Your task to perform on an android device: Is it going to rain today? Image 0: 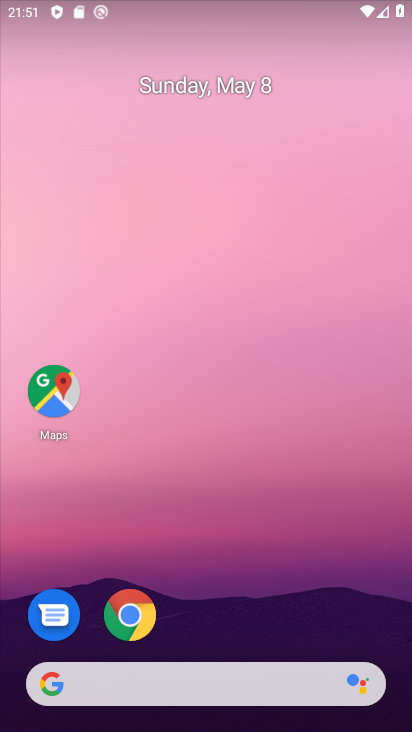
Step 0: drag from (266, 555) to (12, 0)
Your task to perform on an android device: Is it going to rain today? Image 1: 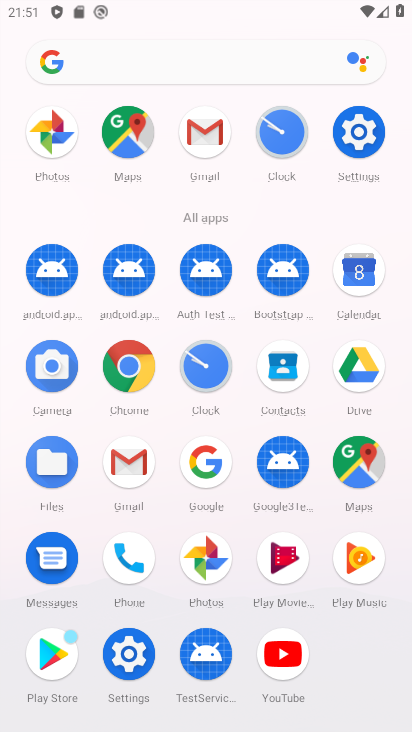
Step 1: press home button
Your task to perform on an android device: Is it going to rain today? Image 2: 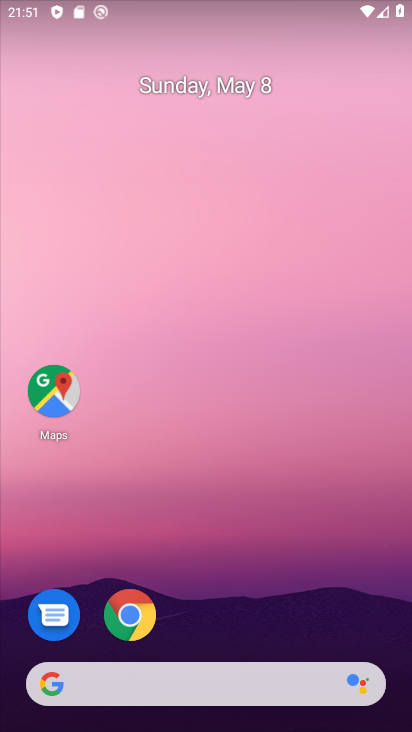
Step 2: click (320, 91)
Your task to perform on an android device: Is it going to rain today? Image 3: 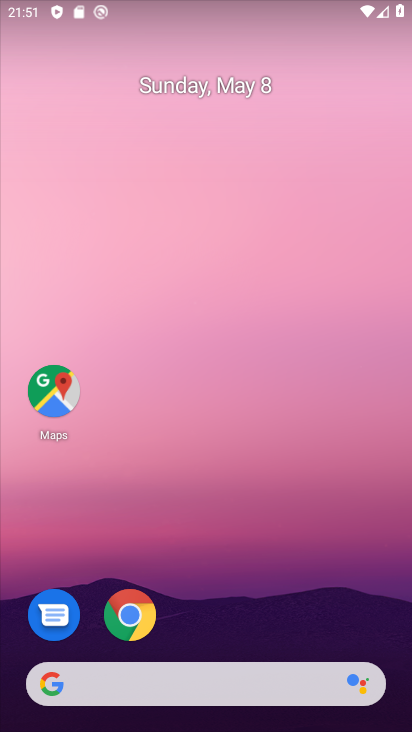
Step 3: click (321, 92)
Your task to perform on an android device: Is it going to rain today? Image 4: 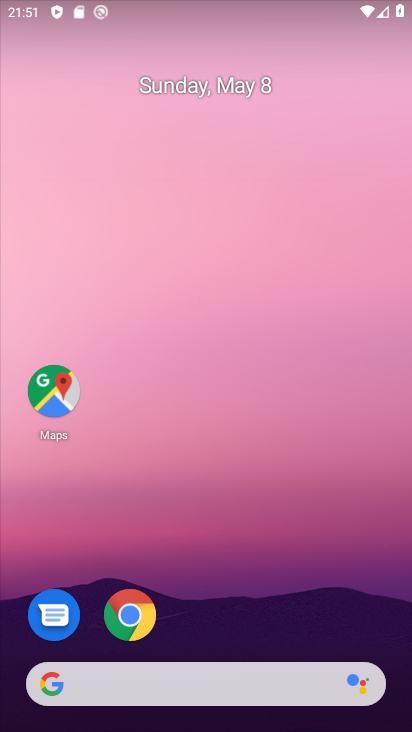
Step 4: click (109, 592)
Your task to perform on an android device: Is it going to rain today? Image 5: 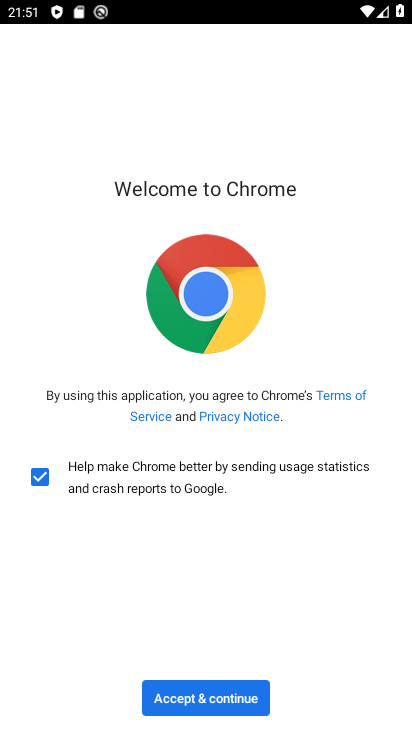
Step 5: click (190, 701)
Your task to perform on an android device: Is it going to rain today? Image 6: 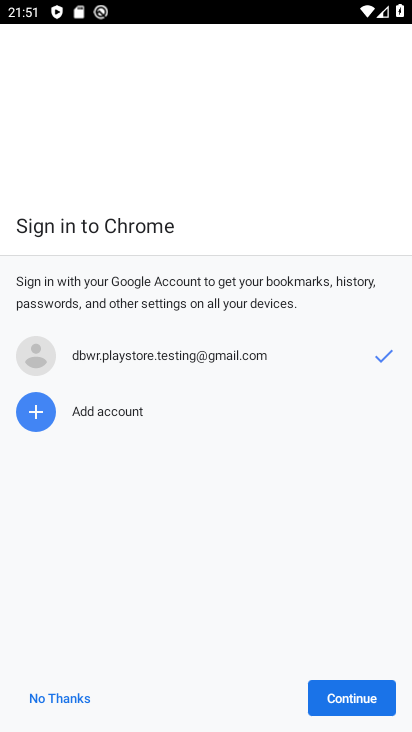
Step 6: click (356, 712)
Your task to perform on an android device: Is it going to rain today? Image 7: 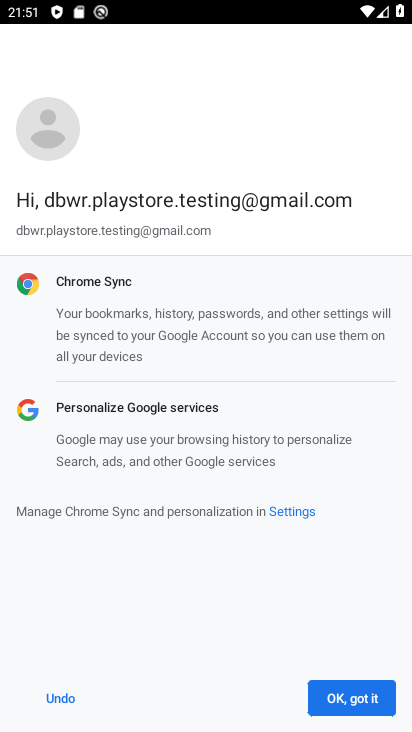
Step 7: click (356, 704)
Your task to perform on an android device: Is it going to rain today? Image 8: 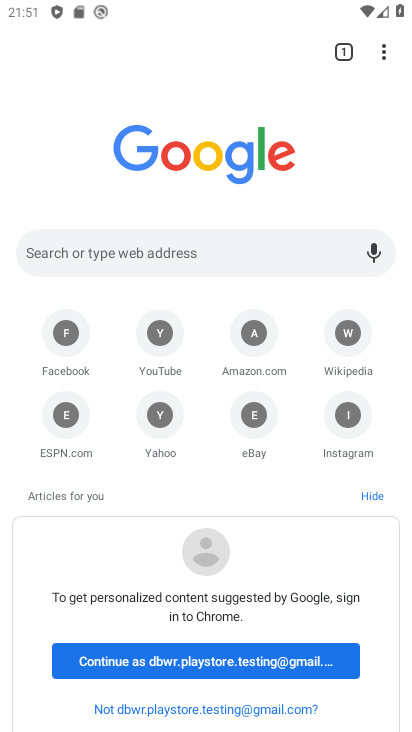
Step 8: click (217, 45)
Your task to perform on an android device: Is it going to rain today? Image 9: 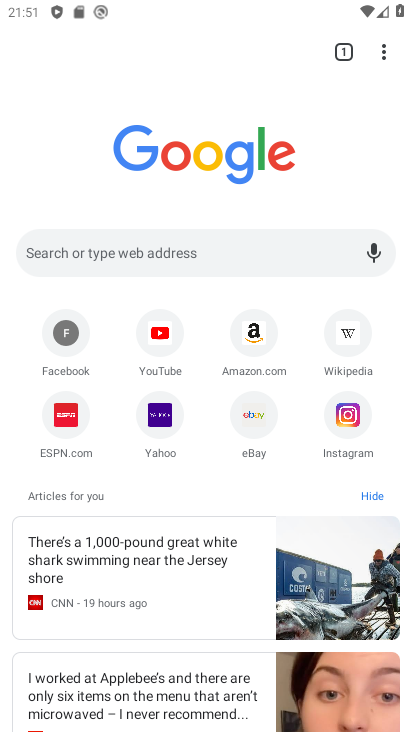
Step 9: click (215, 245)
Your task to perform on an android device: Is it going to rain today? Image 10: 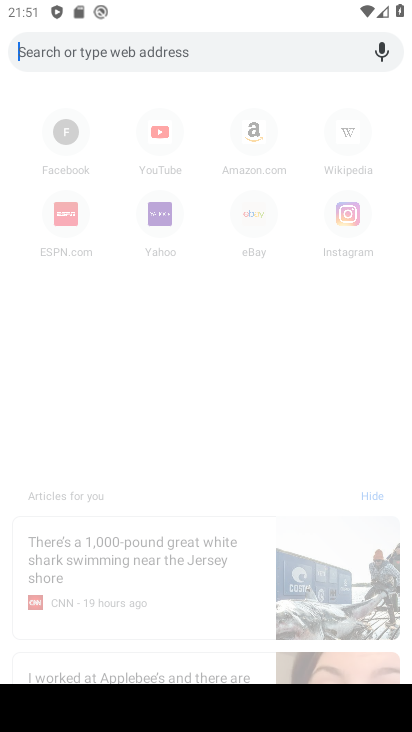
Step 10: type "weather"
Your task to perform on an android device: Is it going to rain today? Image 11: 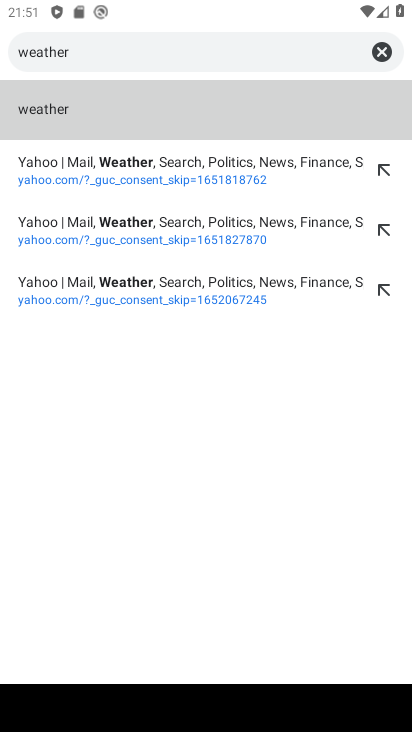
Step 11: click (84, 107)
Your task to perform on an android device: Is it going to rain today? Image 12: 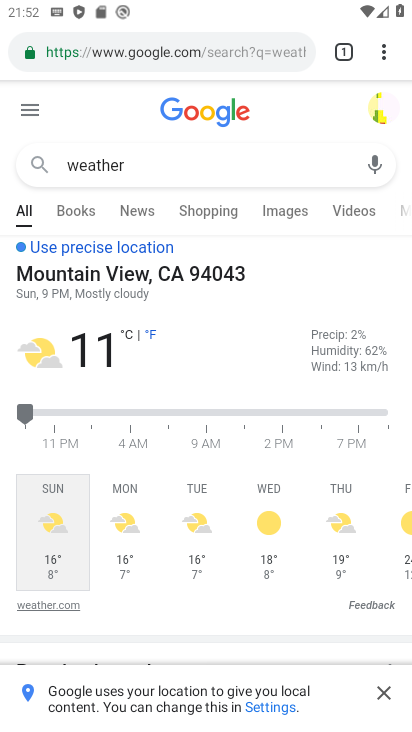
Step 12: task complete